Your task to perform on an android device: Go to CNN.com Image 0: 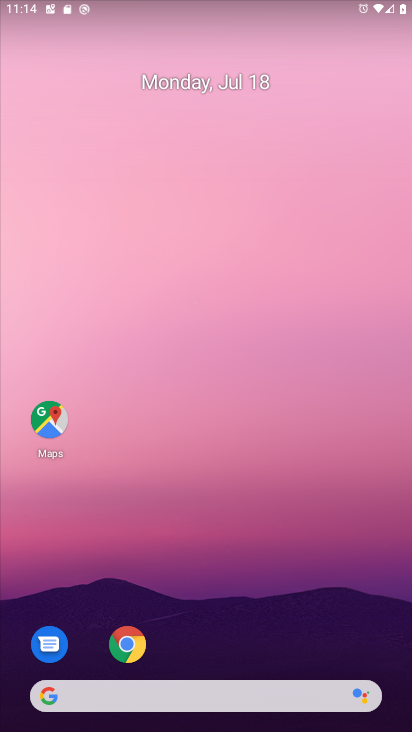
Step 0: click (216, 652)
Your task to perform on an android device: Go to CNN.com Image 1: 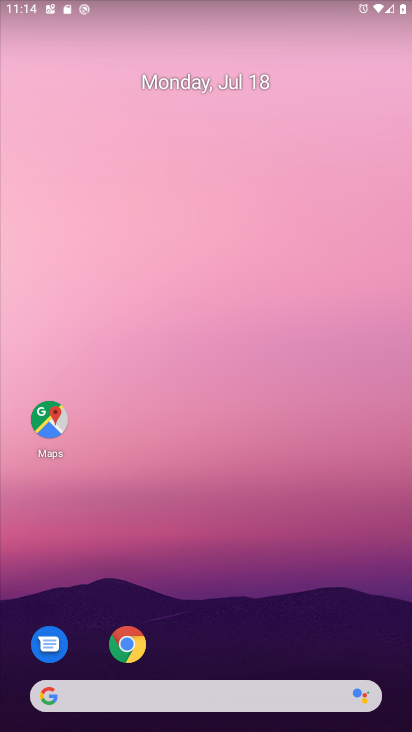
Step 1: click (197, 690)
Your task to perform on an android device: Go to CNN.com Image 2: 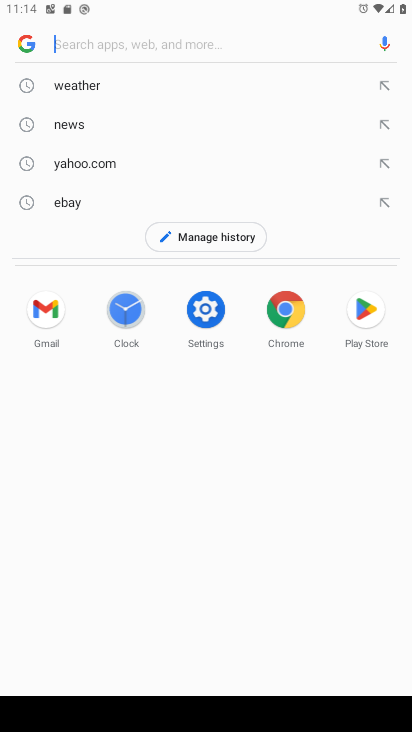
Step 2: type "cnn.com"
Your task to perform on an android device: Go to CNN.com Image 3: 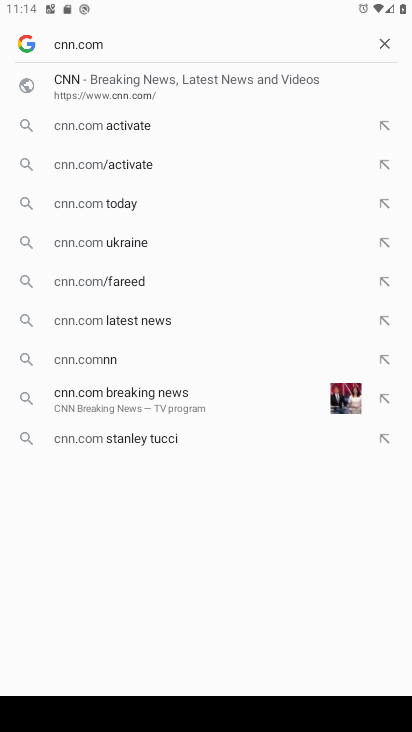
Step 3: click (122, 78)
Your task to perform on an android device: Go to CNN.com Image 4: 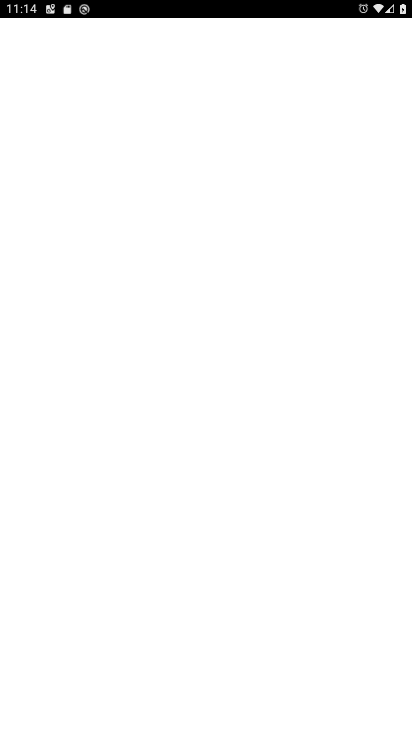
Step 4: task complete